Your task to perform on an android device: delete browsing data in the chrome app Image 0: 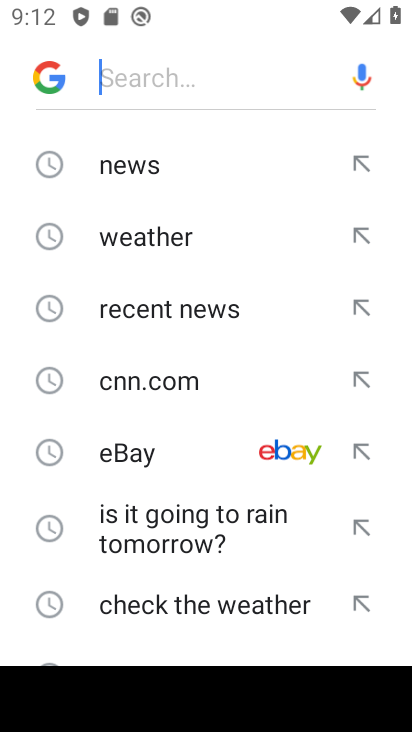
Step 0: press back button
Your task to perform on an android device: delete browsing data in the chrome app Image 1: 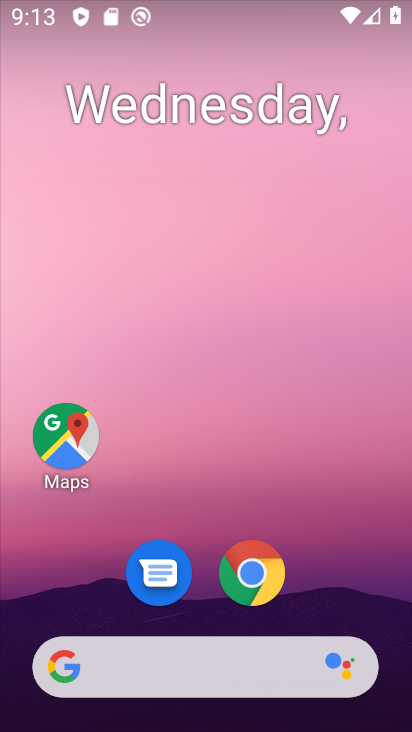
Step 1: click (248, 566)
Your task to perform on an android device: delete browsing data in the chrome app Image 2: 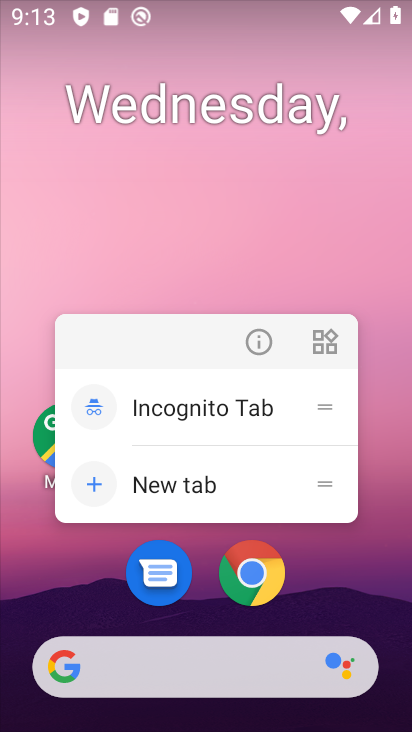
Step 2: click (249, 565)
Your task to perform on an android device: delete browsing data in the chrome app Image 3: 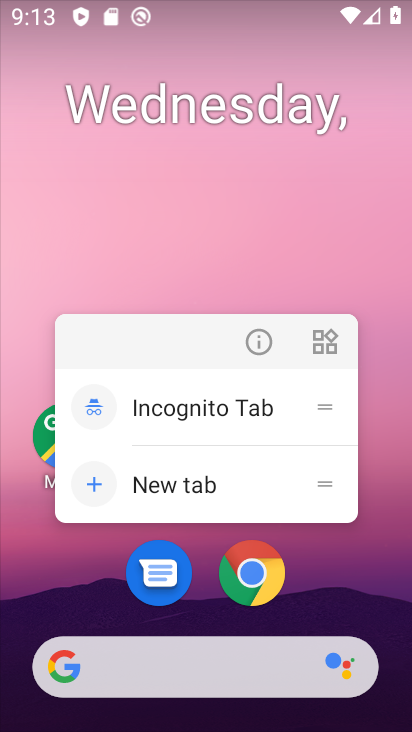
Step 3: click (249, 565)
Your task to perform on an android device: delete browsing data in the chrome app Image 4: 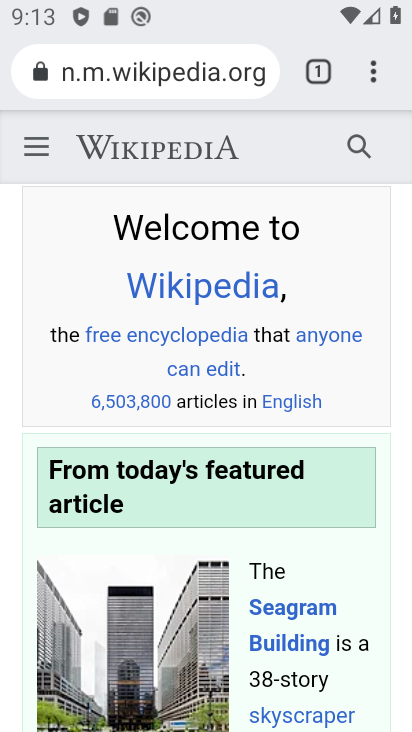
Step 4: click (376, 74)
Your task to perform on an android device: delete browsing data in the chrome app Image 5: 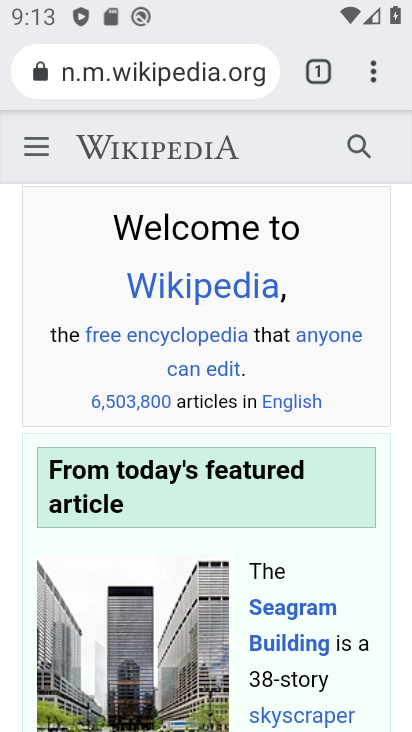
Step 5: click (363, 56)
Your task to perform on an android device: delete browsing data in the chrome app Image 6: 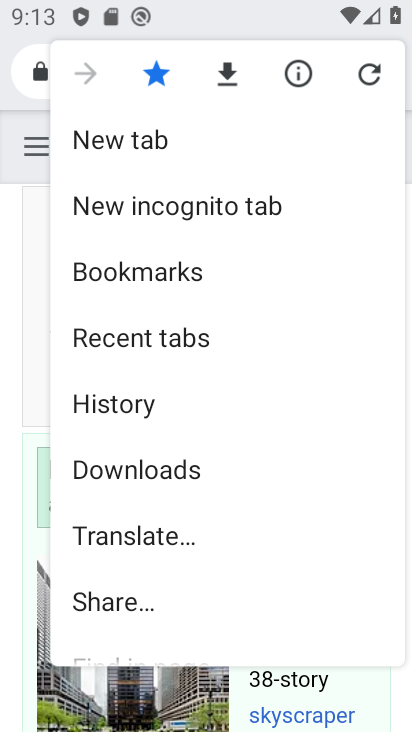
Step 6: drag from (182, 558) to (241, 260)
Your task to perform on an android device: delete browsing data in the chrome app Image 7: 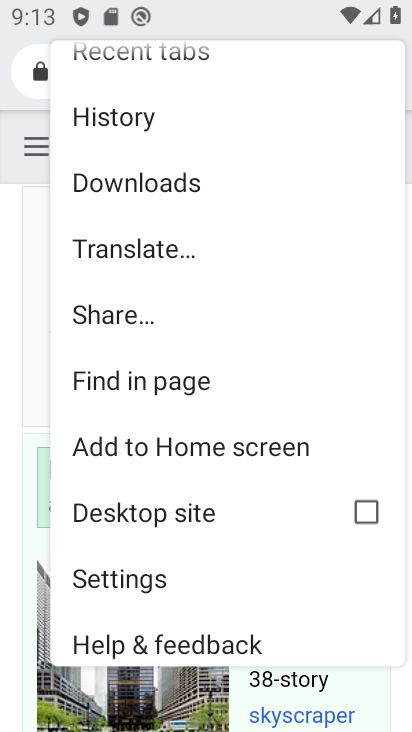
Step 7: click (135, 578)
Your task to perform on an android device: delete browsing data in the chrome app Image 8: 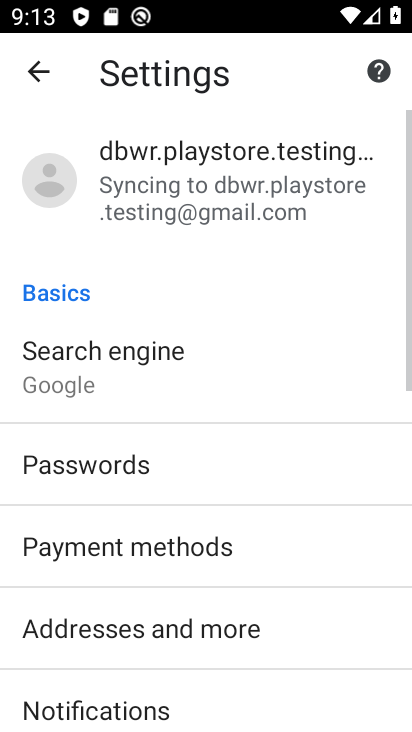
Step 8: drag from (165, 551) to (190, 339)
Your task to perform on an android device: delete browsing data in the chrome app Image 9: 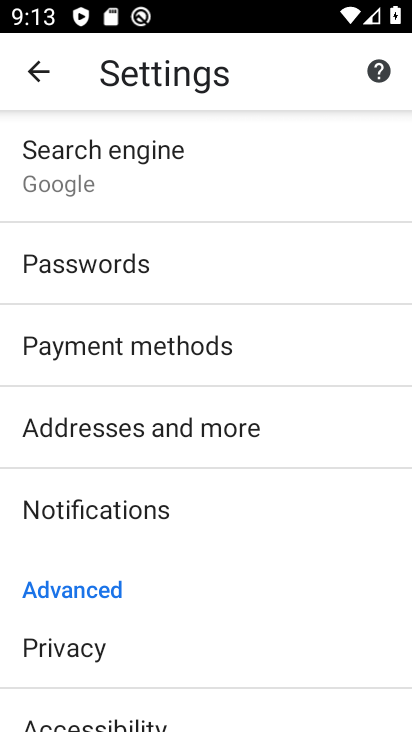
Step 9: drag from (129, 559) to (176, 349)
Your task to perform on an android device: delete browsing data in the chrome app Image 10: 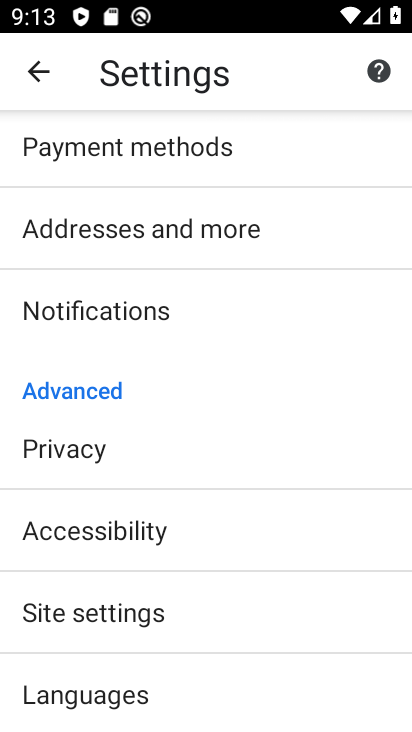
Step 10: drag from (138, 578) to (155, 461)
Your task to perform on an android device: delete browsing data in the chrome app Image 11: 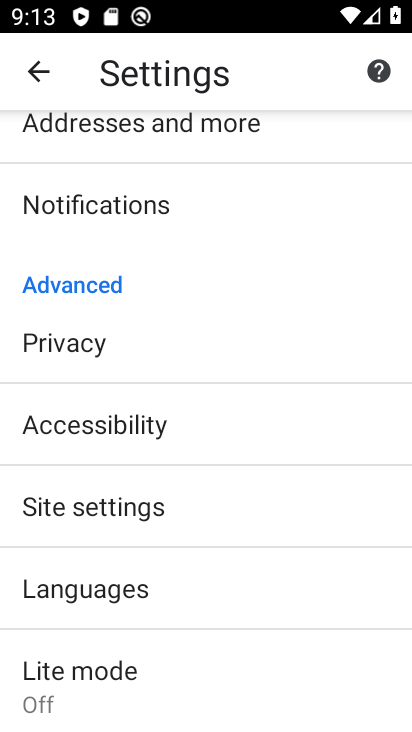
Step 11: drag from (213, 621) to (207, 465)
Your task to perform on an android device: delete browsing data in the chrome app Image 12: 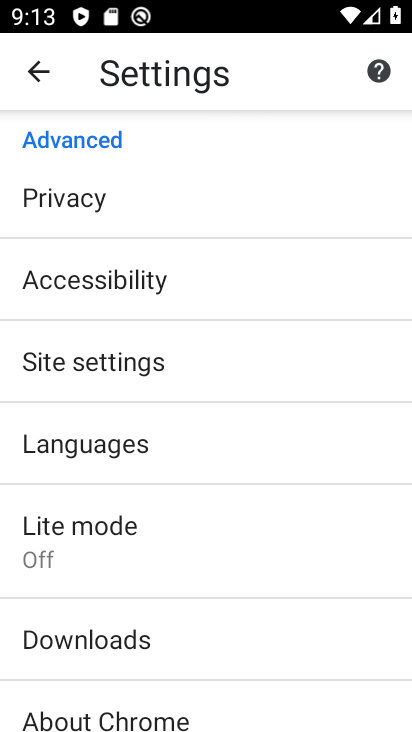
Step 12: click (121, 218)
Your task to perform on an android device: delete browsing data in the chrome app Image 13: 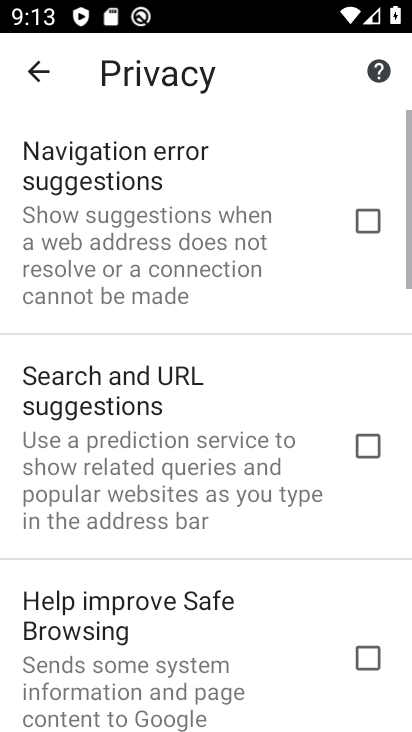
Step 13: drag from (144, 584) to (173, 242)
Your task to perform on an android device: delete browsing data in the chrome app Image 14: 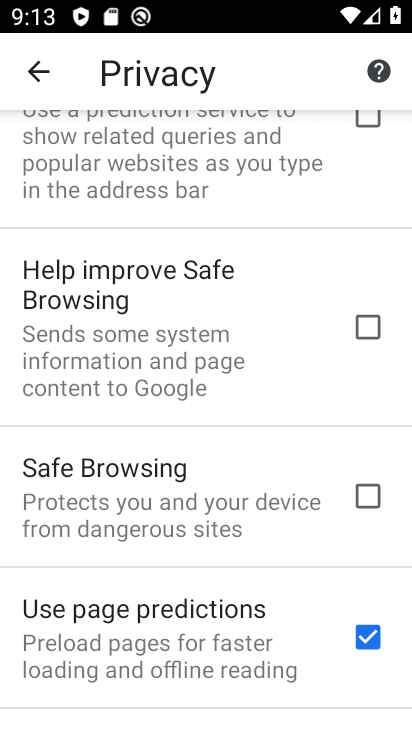
Step 14: drag from (107, 612) to (165, 280)
Your task to perform on an android device: delete browsing data in the chrome app Image 15: 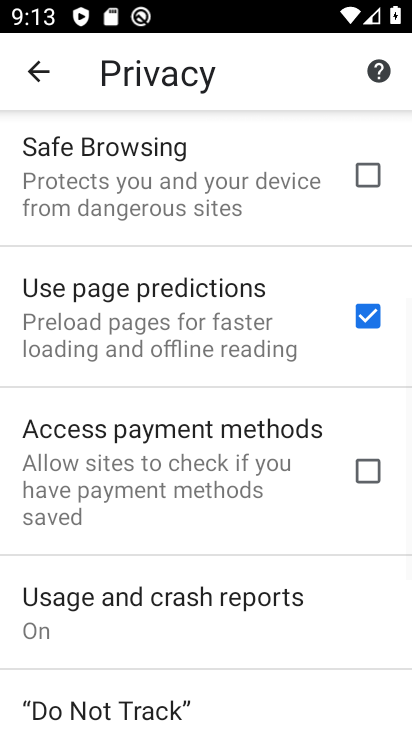
Step 15: drag from (184, 551) to (204, 265)
Your task to perform on an android device: delete browsing data in the chrome app Image 16: 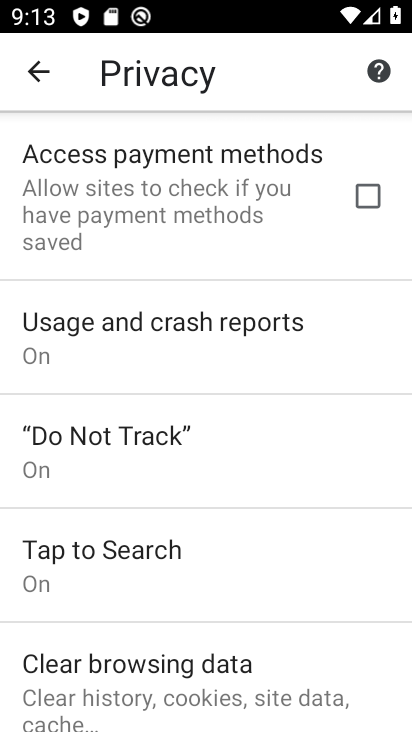
Step 16: drag from (209, 553) to (210, 245)
Your task to perform on an android device: delete browsing data in the chrome app Image 17: 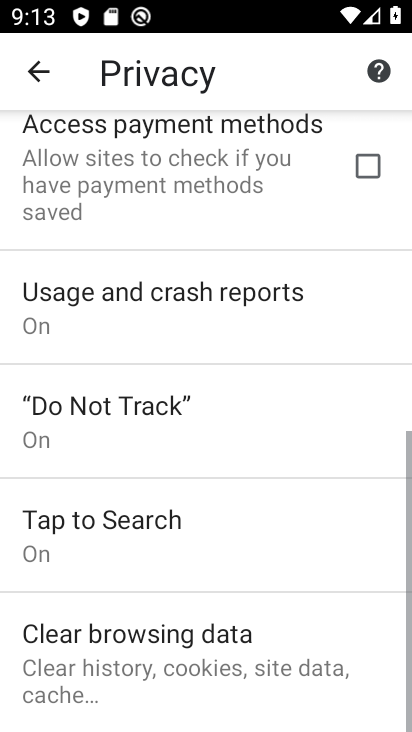
Step 17: click (189, 668)
Your task to perform on an android device: delete browsing data in the chrome app Image 18: 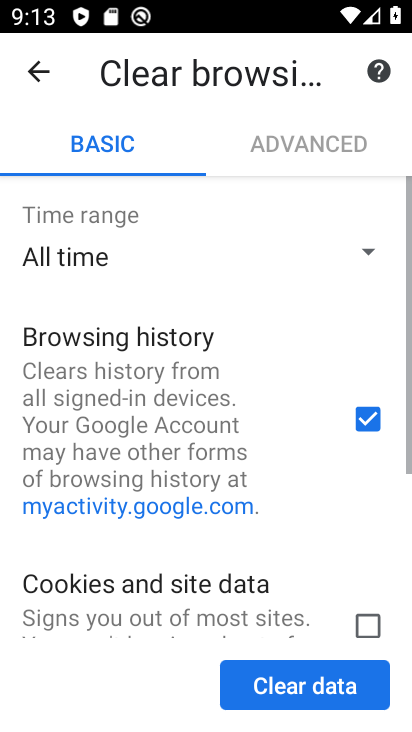
Step 18: click (356, 625)
Your task to perform on an android device: delete browsing data in the chrome app Image 19: 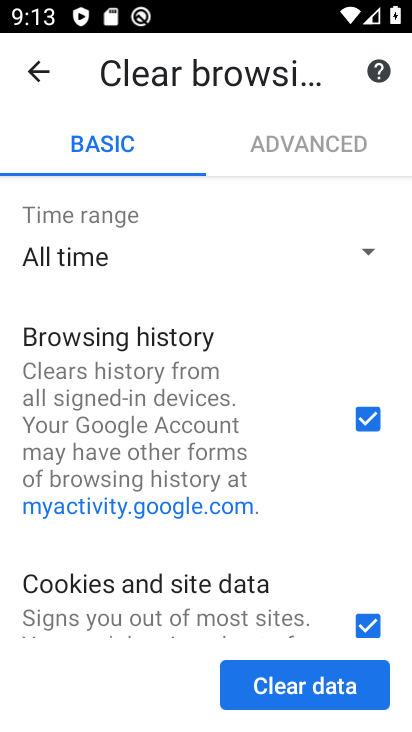
Step 19: click (323, 674)
Your task to perform on an android device: delete browsing data in the chrome app Image 20: 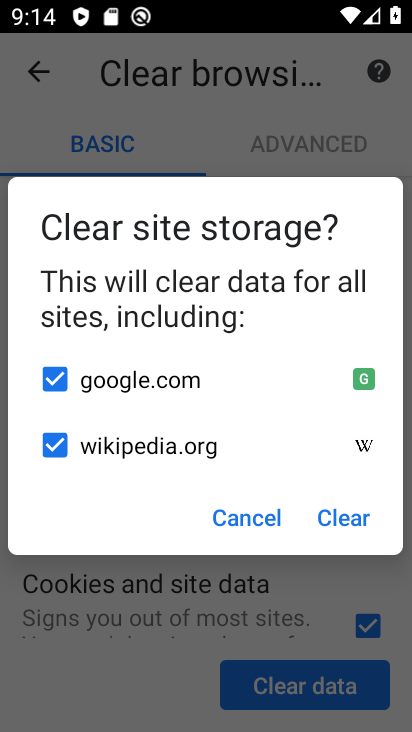
Step 20: click (322, 507)
Your task to perform on an android device: delete browsing data in the chrome app Image 21: 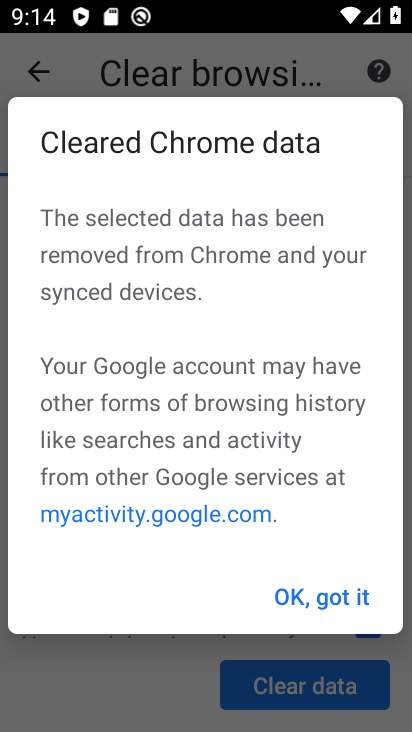
Step 21: task complete